Your task to perform on an android device: create a new album in the google photos Image 0: 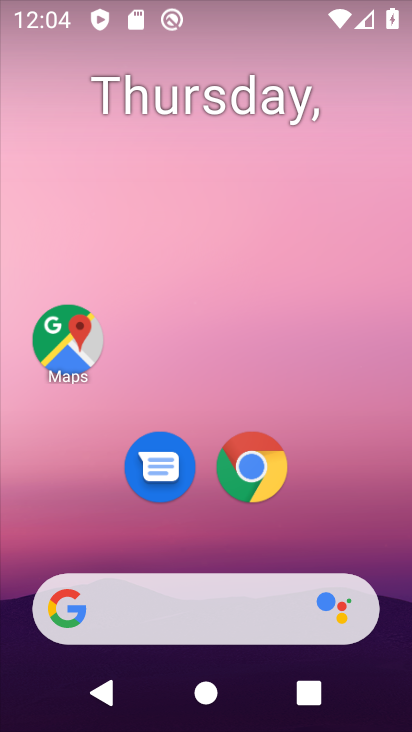
Step 0: press home button
Your task to perform on an android device: create a new album in the google photos Image 1: 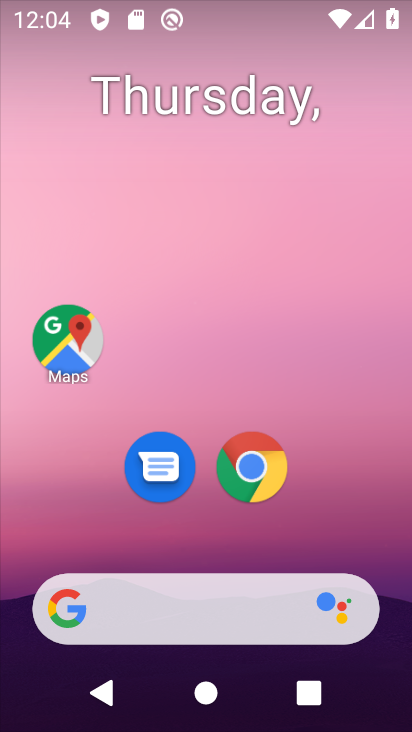
Step 1: drag from (385, 496) to (375, 138)
Your task to perform on an android device: create a new album in the google photos Image 2: 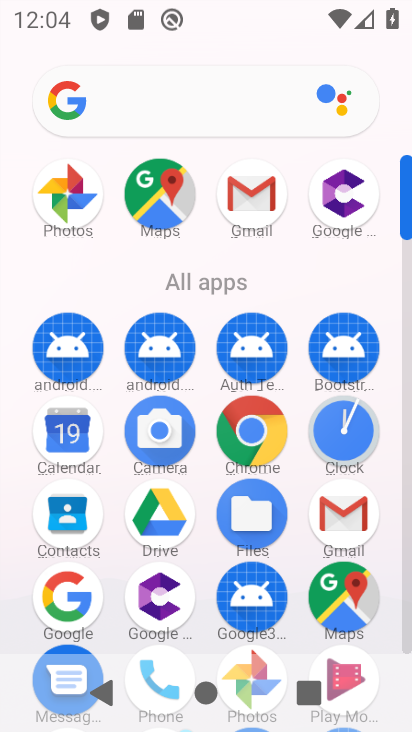
Step 2: click (409, 111)
Your task to perform on an android device: create a new album in the google photos Image 3: 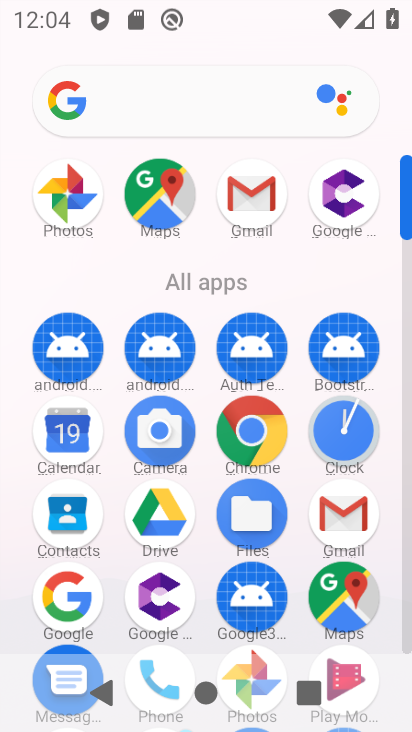
Step 3: click (64, 194)
Your task to perform on an android device: create a new album in the google photos Image 4: 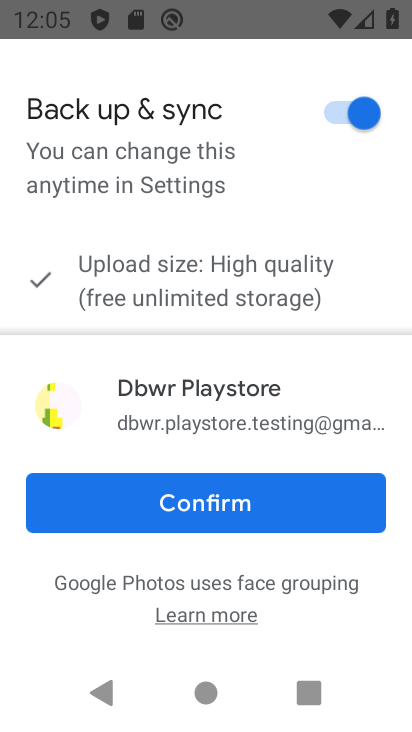
Step 4: click (283, 506)
Your task to perform on an android device: create a new album in the google photos Image 5: 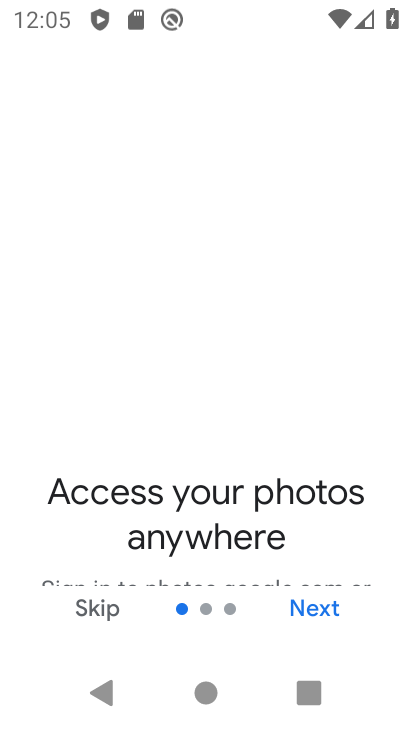
Step 5: click (309, 606)
Your task to perform on an android device: create a new album in the google photos Image 6: 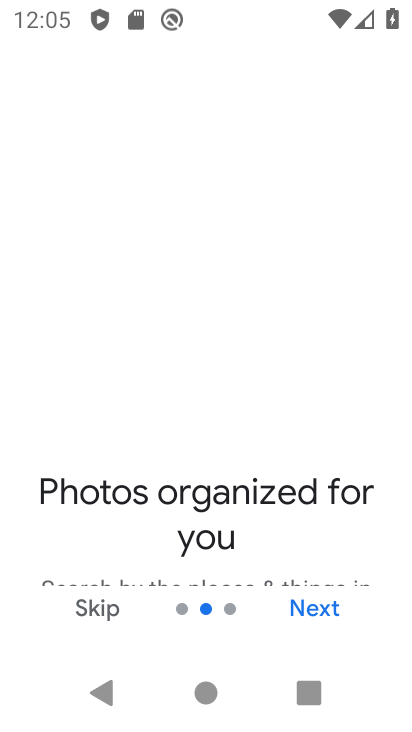
Step 6: click (309, 606)
Your task to perform on an android device: create a new album in the google photos Image 7: 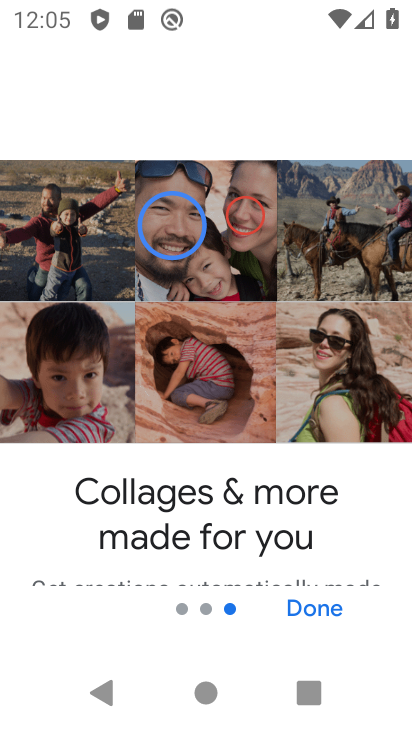
Step 7: click (309, 607)
Your task to perform on an android device: create a new album in the google photos Image 8: 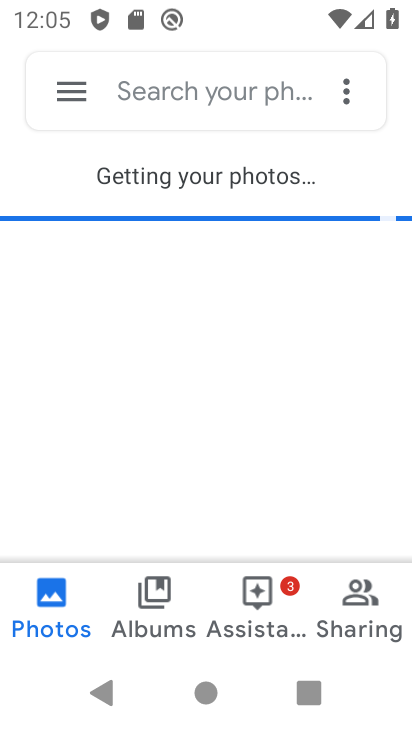
Step 8: click (347, 90)
Your task to perform on an android device: create a new album in the google photos Image 9: 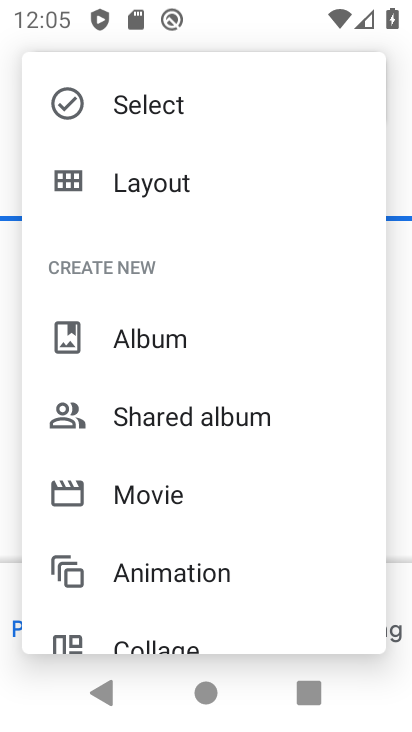
Step 9: click (161, 336)
Your task to perform on an android device: create a new album in the google photos Image 10: 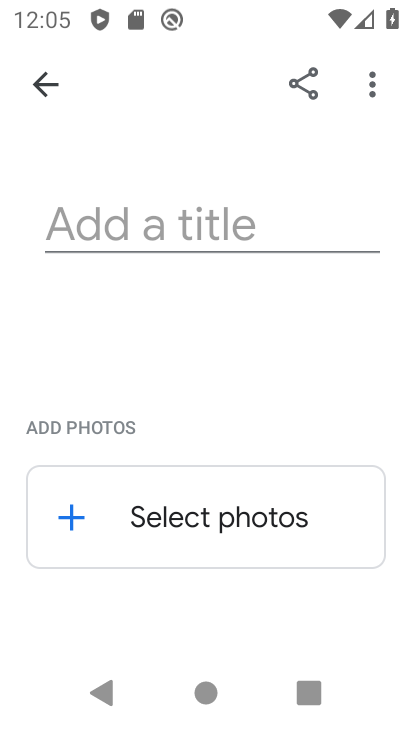
Step 10: click (145, 231)
Your task to perform on an android device: create a new album in the google photos Image 11: 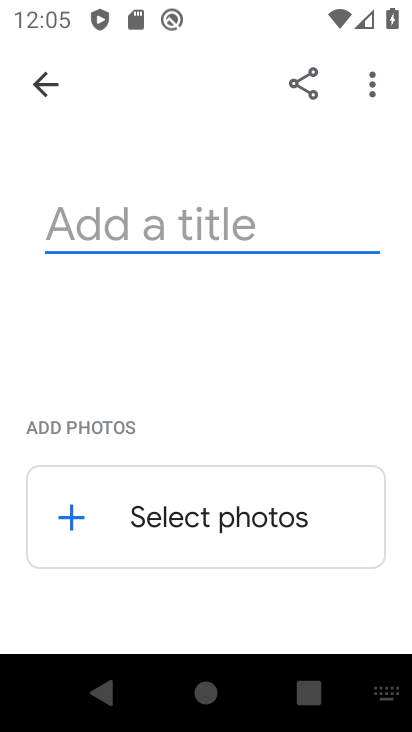
Step 11: type "dtgbdyhd"
Your task to perform on an android device: create a new album in the google photos Image 12: 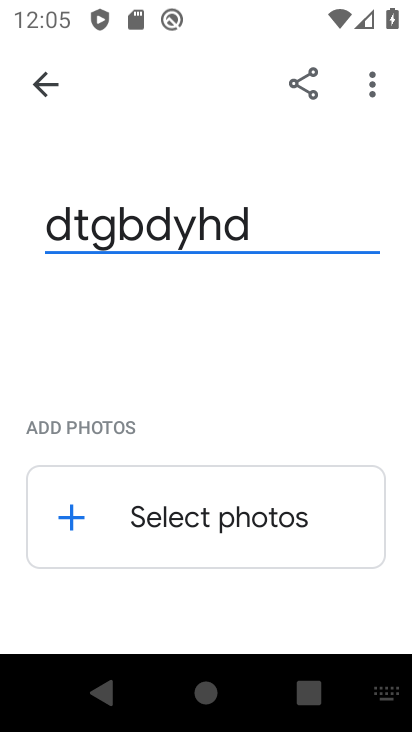
Step 12: click (71, 522)
Your task to perform on an android device: create a new album in the google photos Image 13: 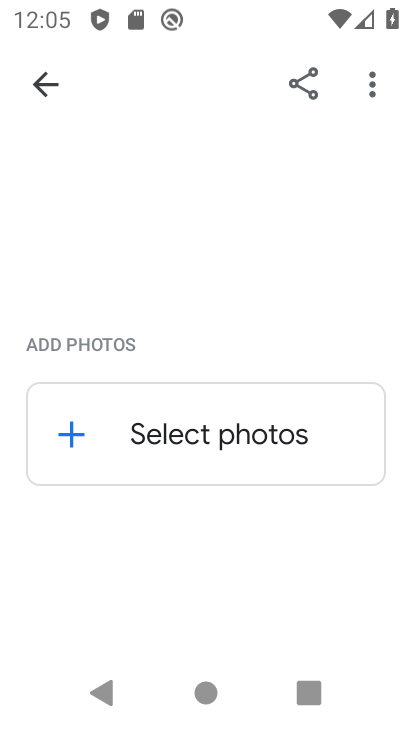
Step 13: click (68, 424)
Your task to perform on an android device: create a new album in the google photos Image 14: 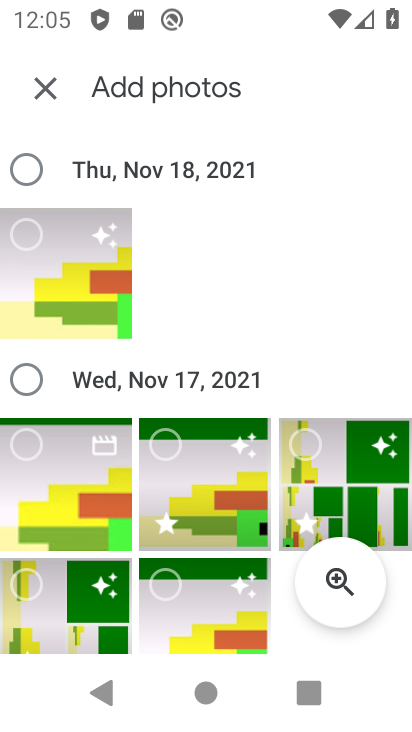
Step 14: click (22, 230)
Your task to perform on an android device: create a new album in the google photos Image 15: 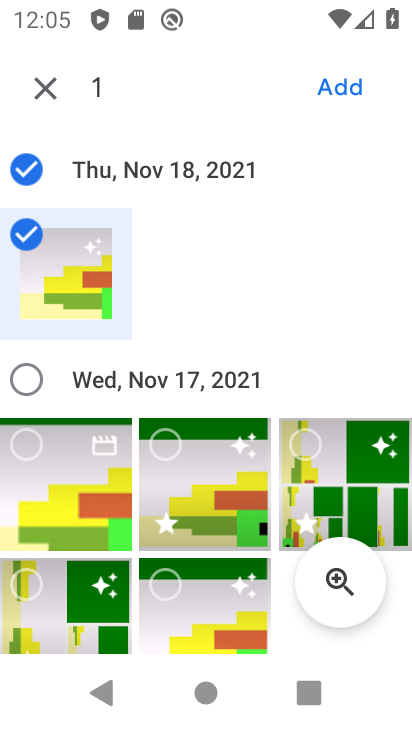
Step 15: click (30, 383)
Your task to perform on an android device: create a new album in the google photos Image 16: 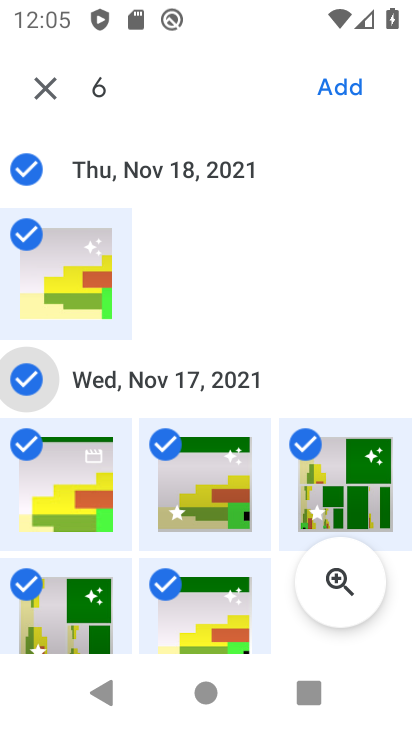
Step 16: click (28, 455)
Your task to perform on an android device: create a new album in the google photos Image 17: 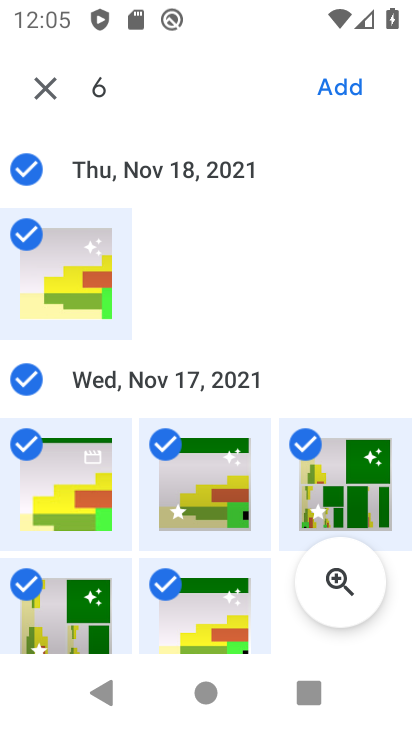
Step 17: click (180, 455)
Your task to perform on an android device: create a new album in the google photos Image 18: 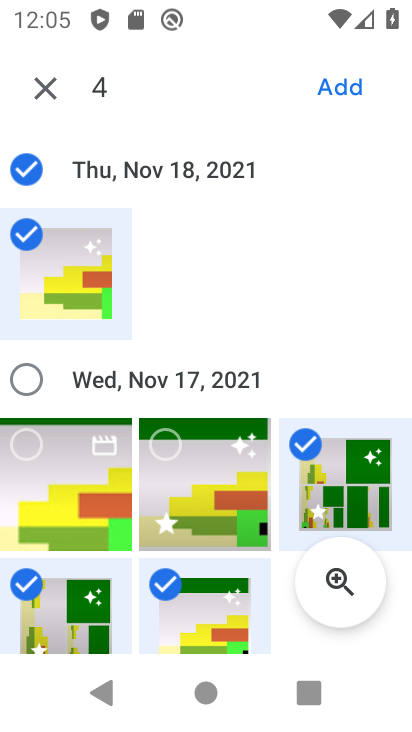
Step 18: click (347, 81)
Your task to perform on an android device: create a new album in the google photos Image 19: 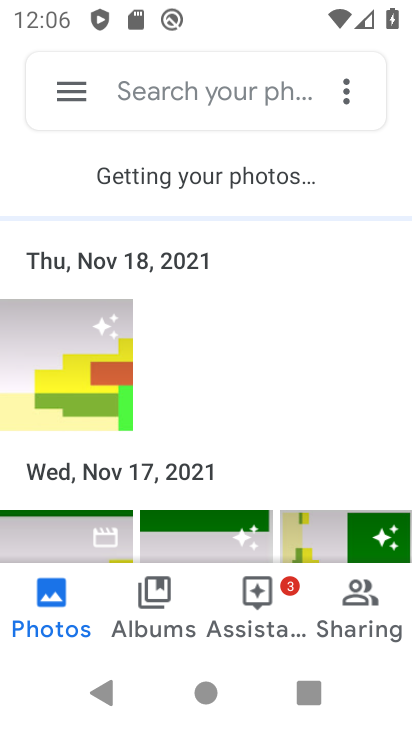
Step 19: task complete